Your task to perform on an android device: Go to Google maps Image 0: 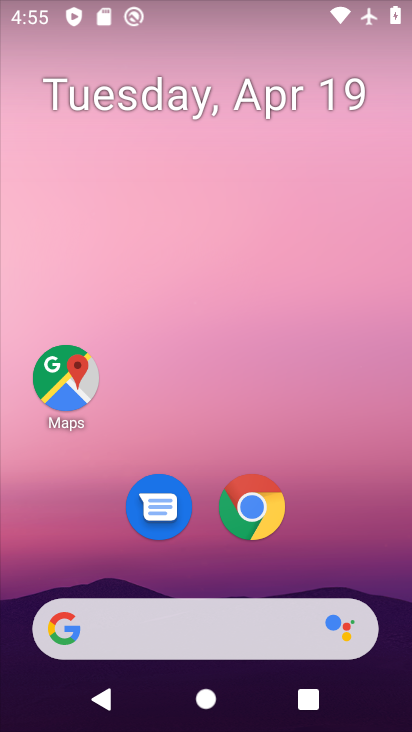
Step 0: drag from (343, 530) to (369, 116)
Your task to perform on an android device: Go to Google maps Image 1: 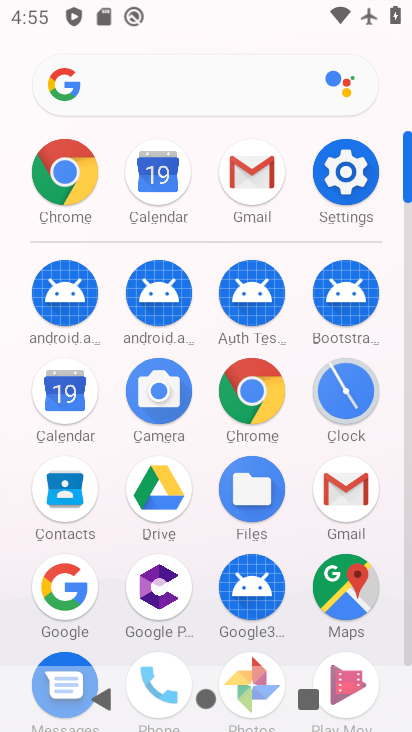
Step 1: click (350, 597)
Your task to perform on an android device: Go to Google maps Image 2: 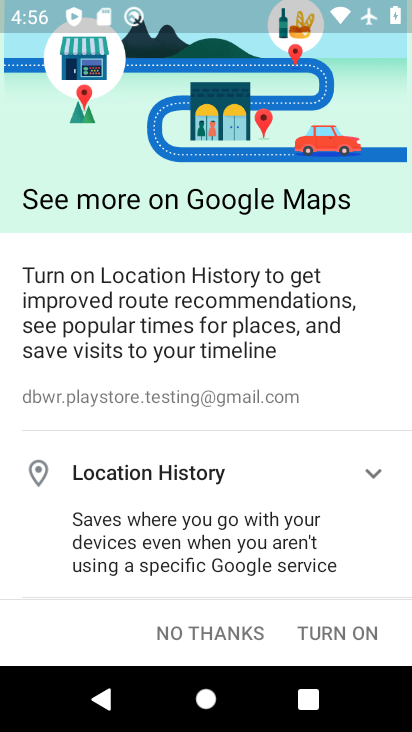
Step 2: task complete